Your task to perform on an android device: set the timer Image 0: 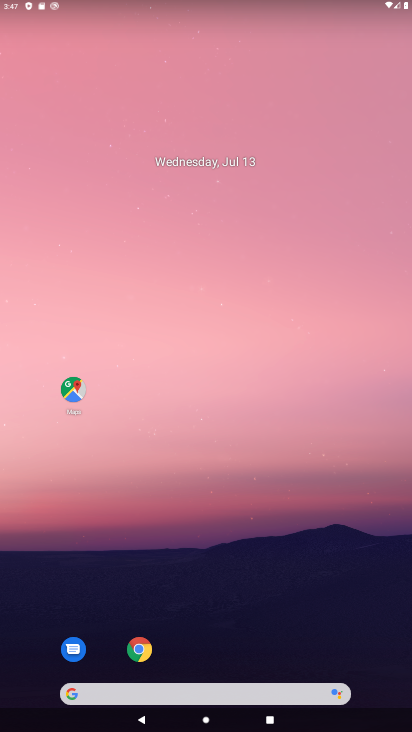
Step 0: drag from (234, 721) to (267, 171)
Your task to perform on an android device: set the timer Image 1: 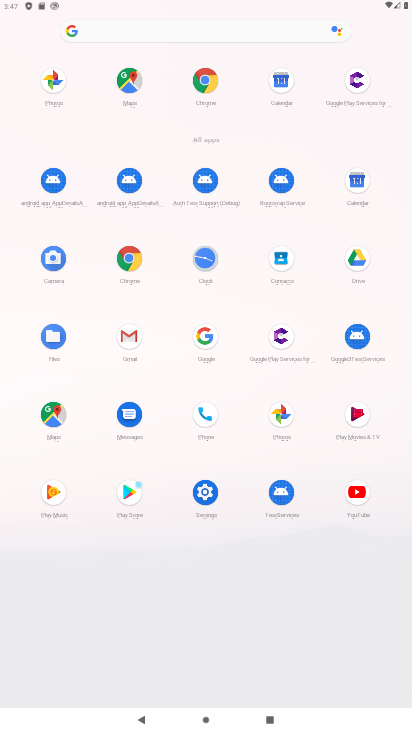
Step 1: click (205, 253)
Your task to perform on an android device: set the timer Image 2: 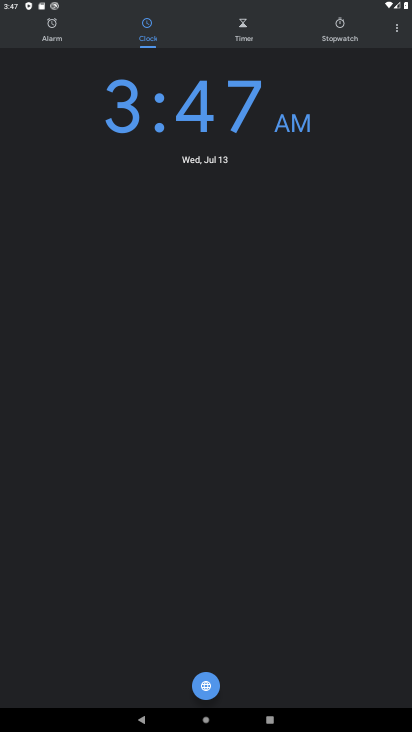
Step 2: click (249, 21)
Your task to perform on an android device: set the timer Image 3: 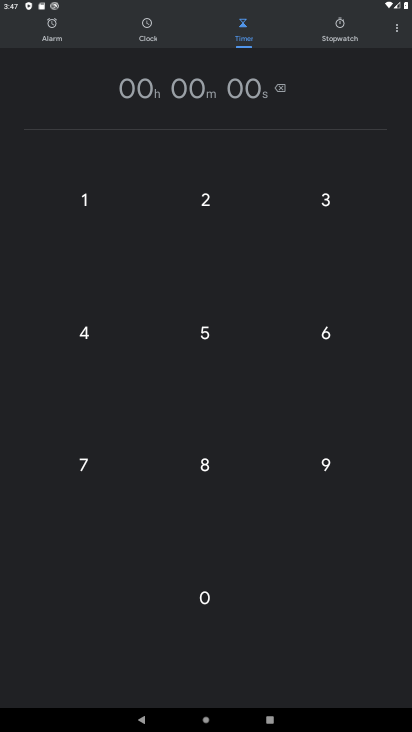
Step 3: click (212, 334)
Your task to perform on an android device: set the timer Image 4: 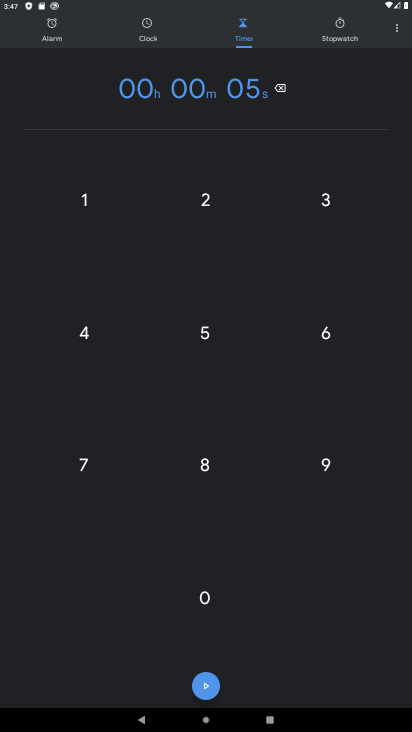
Step 4: click (204, 467)
Your task to perform on an android device: set the timer Image 5: 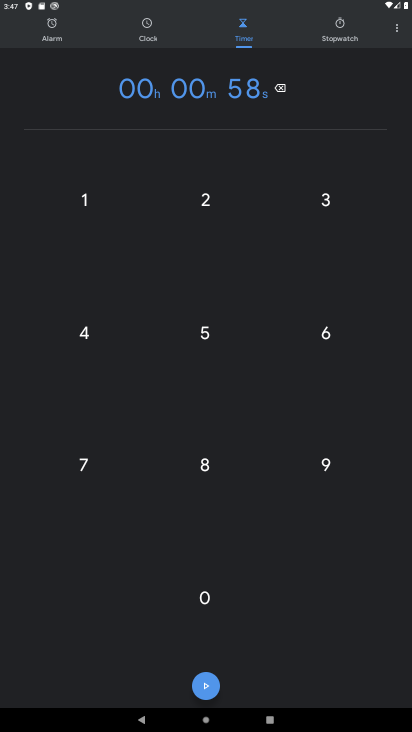
Step 5: click (86, 456)
Your task to perform on an android device: set the timer Image 6: 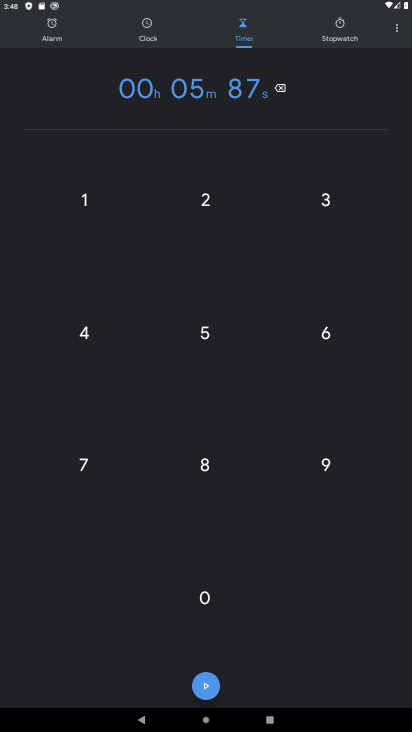
Step 6: click (91, 193)
Your task to perform on an android device: set the timer Image 7: 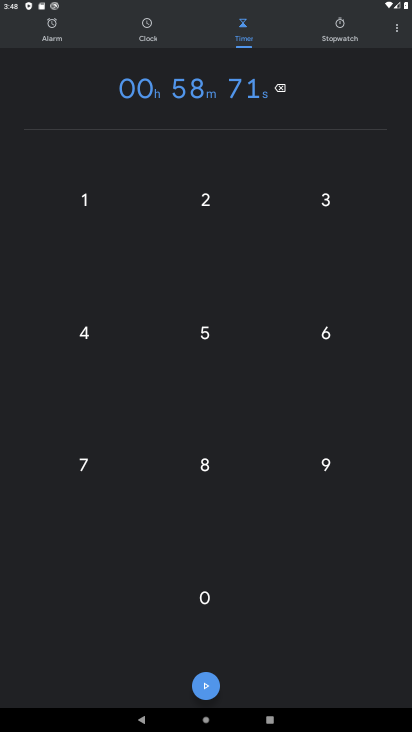
Step 7: click (205, 680)
Your task to perform on an android device: set the timer Image 8: 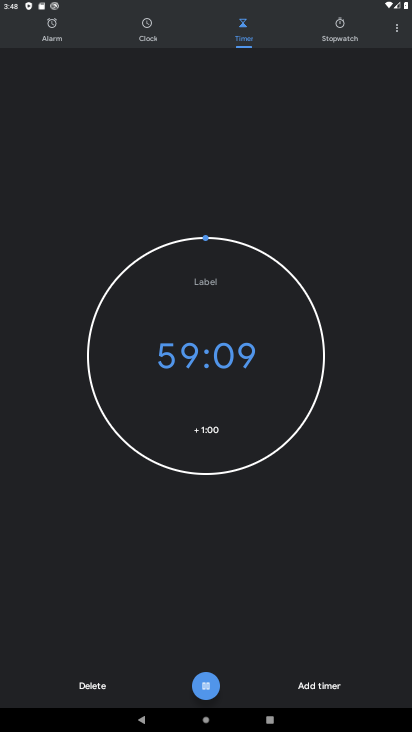
Step 8: task complete